Your task to perform on an android device: toggle data saver in the chrome app Image 0: 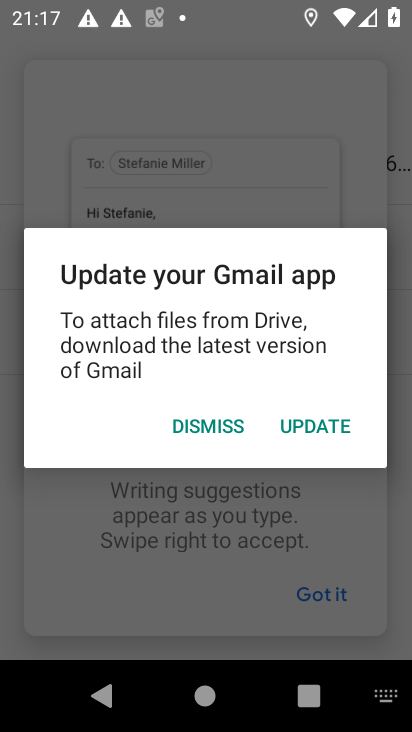
Step 0: click (348, 594)
Your task to perform on an android device: toggle data saver in the chrome app Image 1: 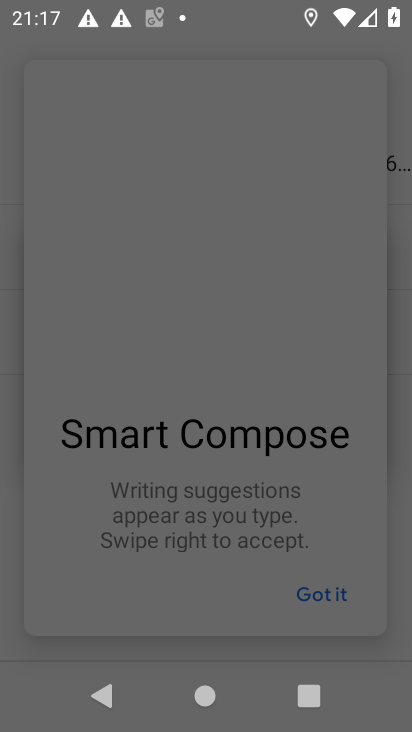
Step 1: click (297, 555)
Your task to perform on an android device: toggle data saver in the chrome app Image 2: 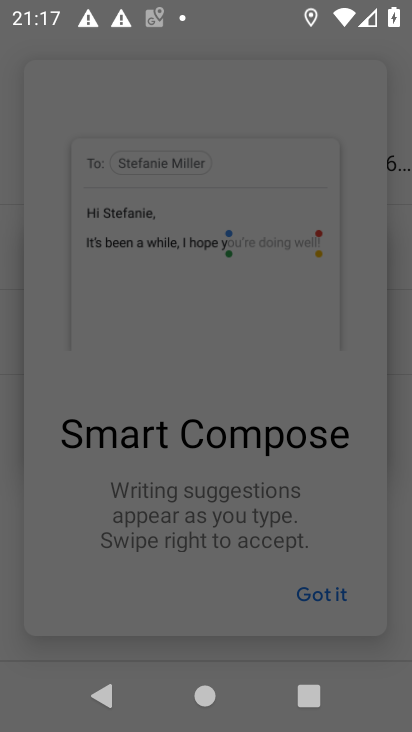
Step 2: press back button
Your task to perform on an android device: toggle data saver in the chrome app Image 3: 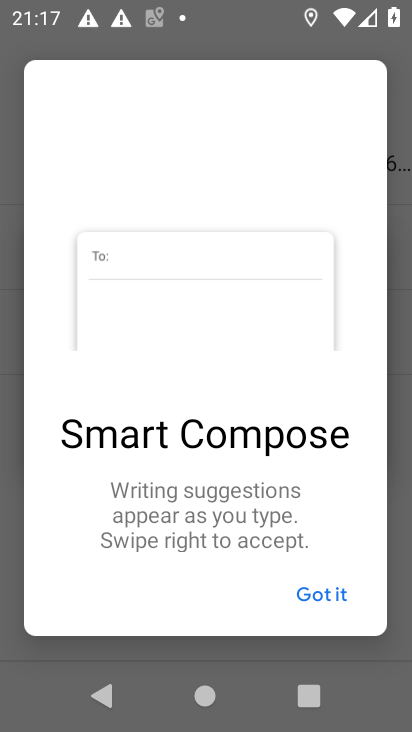
Step 3: press home button
Your task to perform on an android device: toggle data saver in the chrome app Image 4: 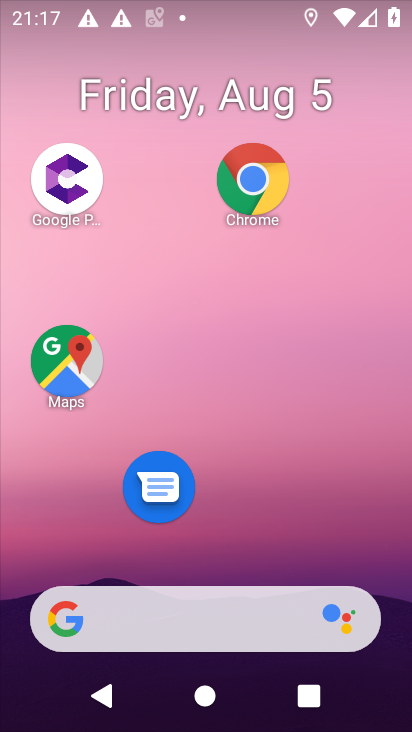
Step 4: click (253, 176)
Your task to perform on an android device: toggle data saver in the chrome app Image 5: 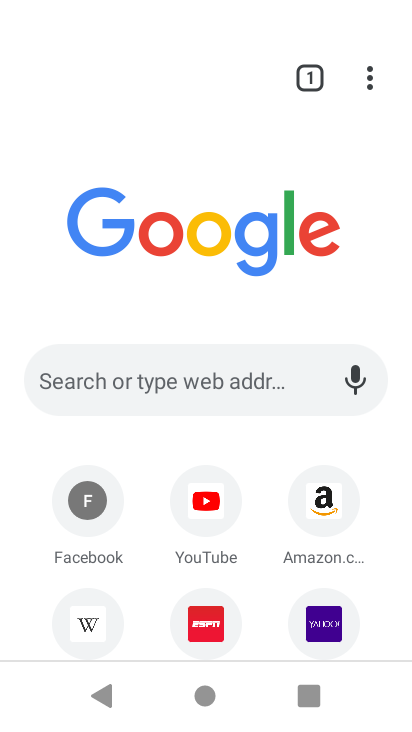
Step 5: click (362, 76)
Your task to perform on an android device: toggle data saver in the chrome app Image 6: 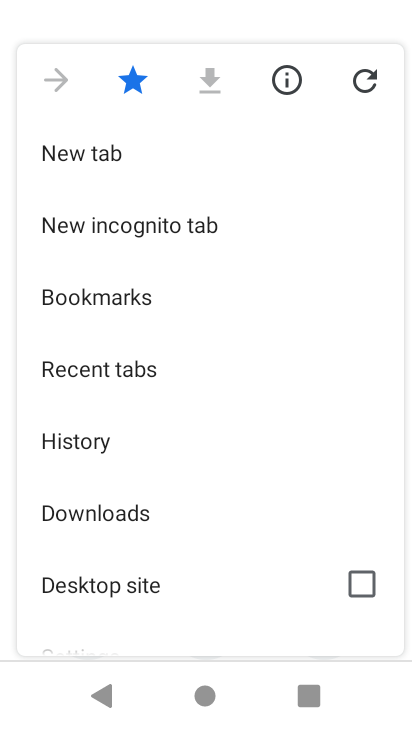
Step 6: drag from (298, 534) to (219, 63)
Your task to perform on an android device: toggle data saver in the chrome app Image 7: 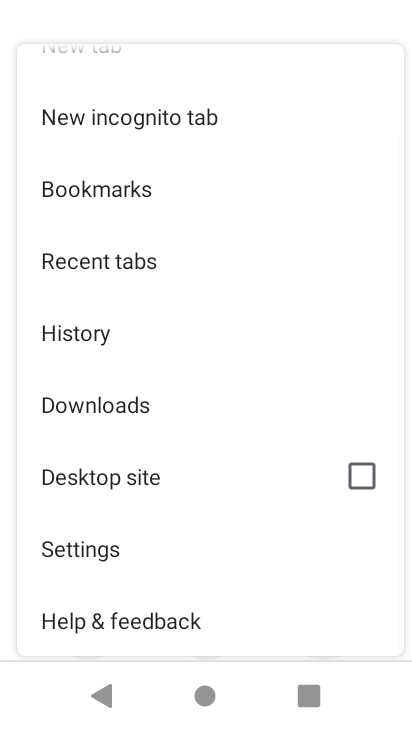
Step 7: click (65, 566)
Your task to perform on an android device: toggle data saver in the chrome app Image 8: 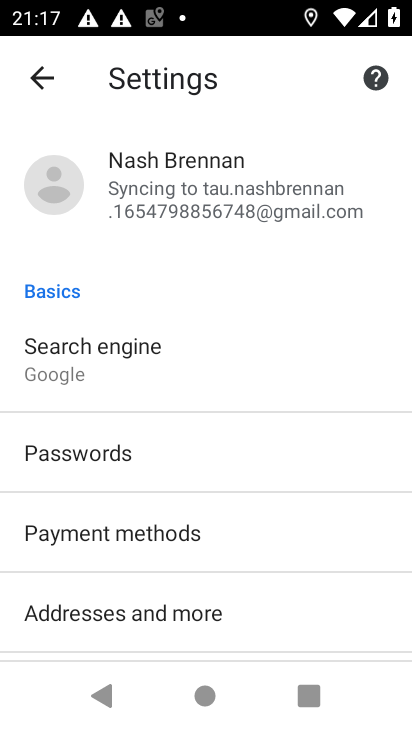
Step 8: drag from (60, 585) to (73, 8)
Your task to perform on an android device: toggle data saver in the chrome app Image 9: 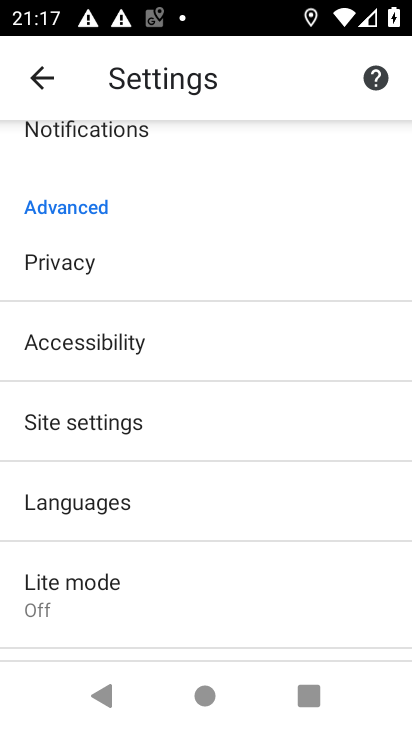
Step 9: click (143, 575)
Your task to perform on an android device: toggle data saver in the chrome app Image 10: 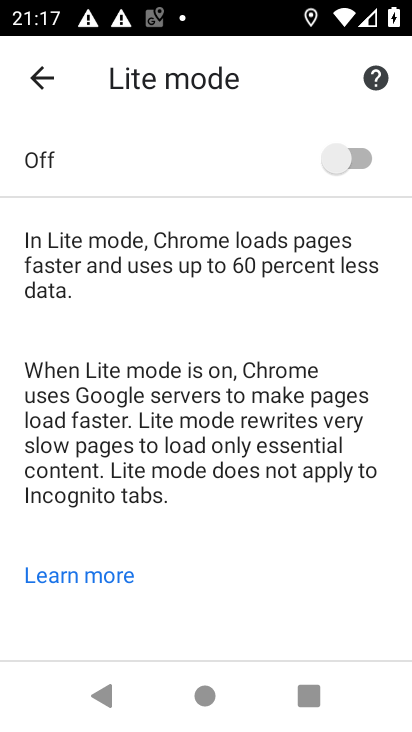
Step 10: click (338, 161)
Your task to perform on an android device: toggle data saver in the chrome app Image 11: 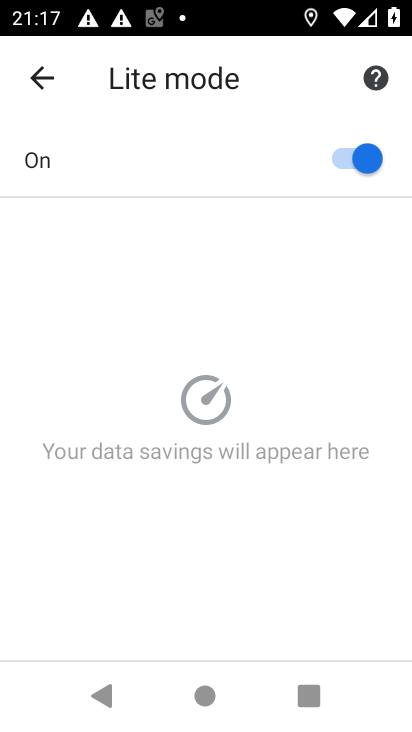
Step 11: task complete